Your task to perform on an android device: Go to Google maps Image 0: 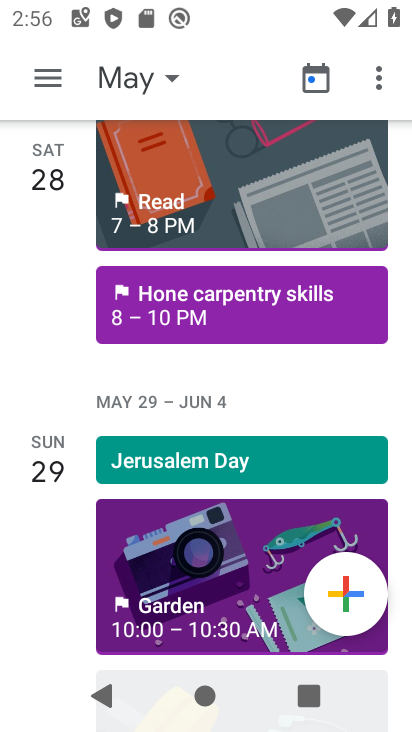
Step 0: press home button
Your task to perform on an android device: Go to Google maps Image 1: 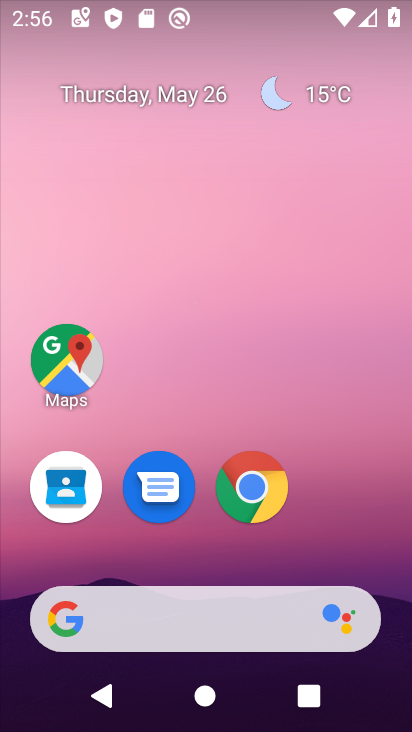
Step 1: click (65, 361)
Your task to perform on an android device: Go to Google maps Image 2: 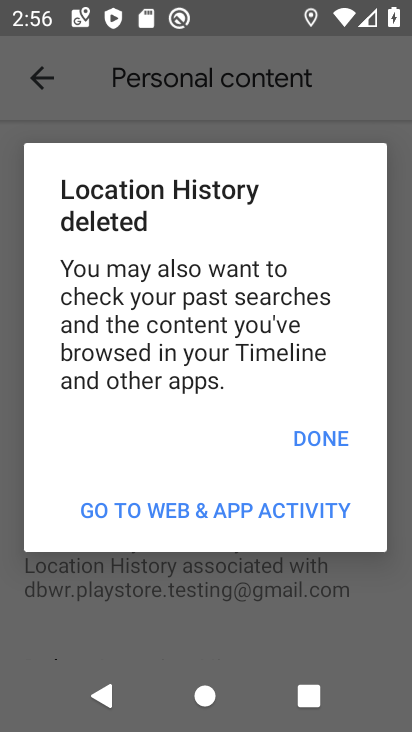
Step 2: task complete